Your task to perform on an android device: delete location history Image 0: 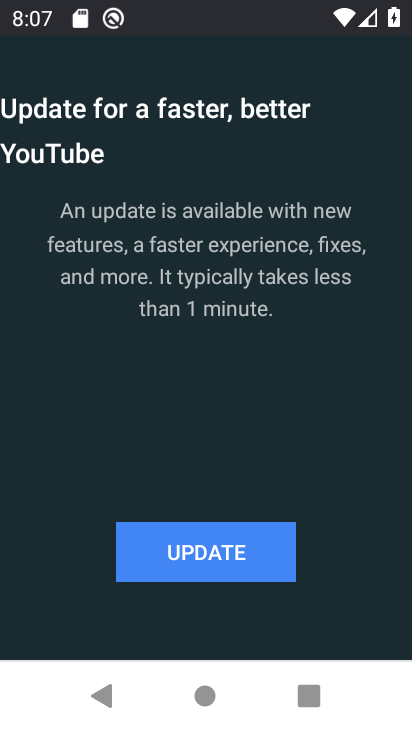
Step 0: press back button
Your task to perform on an android device: delete location history Image 1: 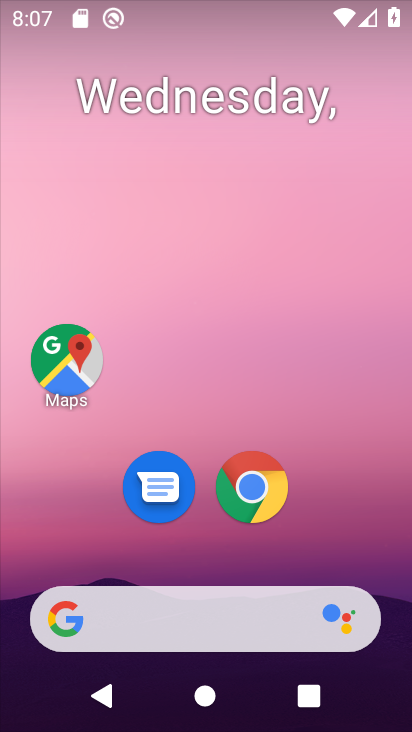
Step 1: click (65, 362)
Your task to perform on an android device: delete location history Image 2: 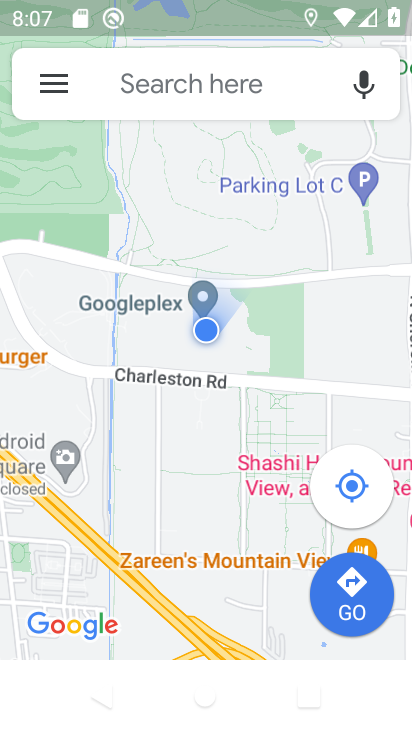
Step 2: click (51, 78)
Your task to perform on an android device: delete location history Image 3: 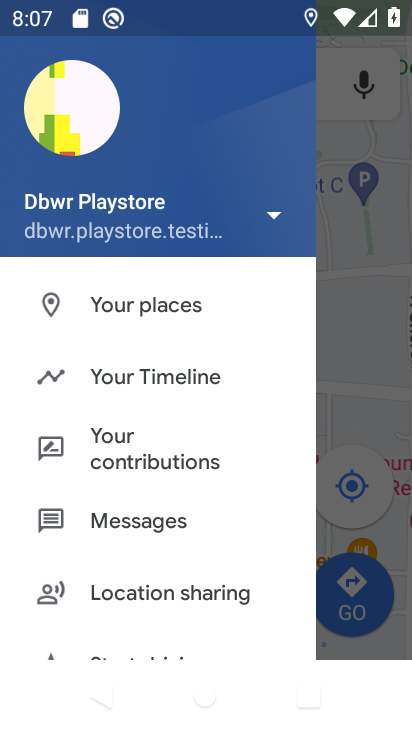
Step 3: drag from (116, 545) to (196, 416)
Your task to perform on an android device: delete location history Image 4: 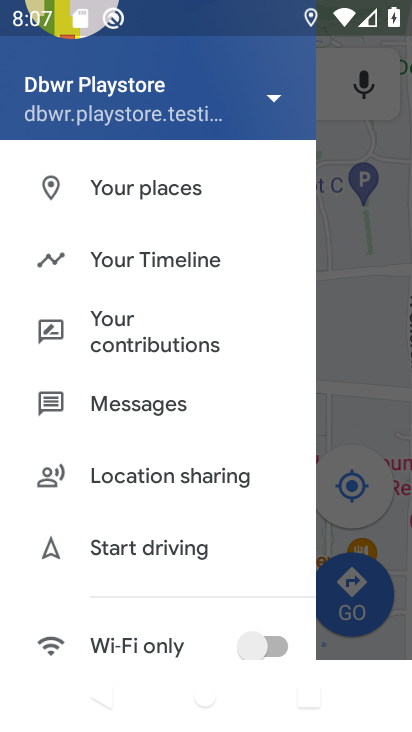
Step 4: drag from (130, 573) to (173, 470)
Your task to perform on an android device: delete location history Image 5: 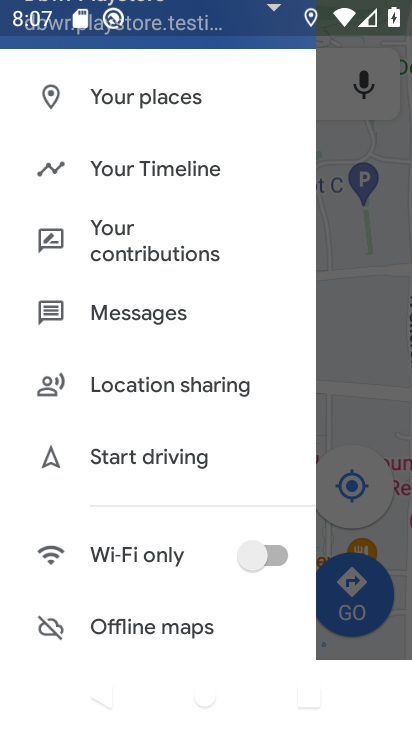
Step 5: drag from (123, 581) to (199, 434)
Your task to perform on an android device: delete location history Image 6: 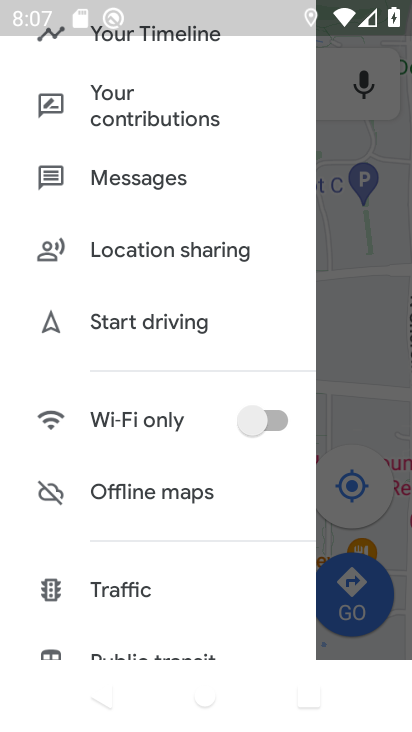
Step 6: drag from (144, 561) to (169, 443)
Your task to perform on an android device: delete location history Image 7: 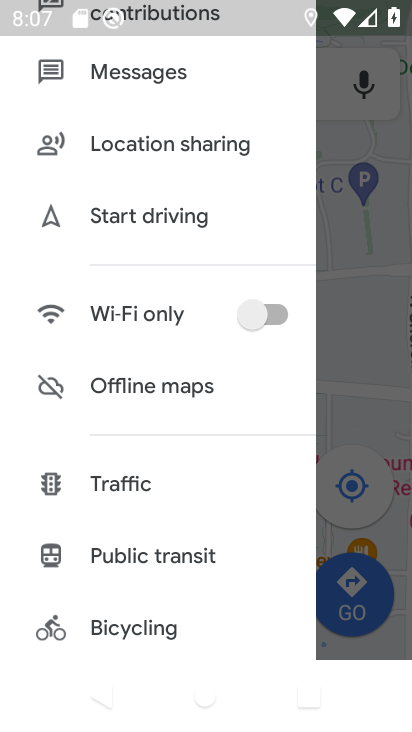
Step 7: drag from (118, 588) to (160, 483)
Your task to perform on an android device: delete location history Image 8: 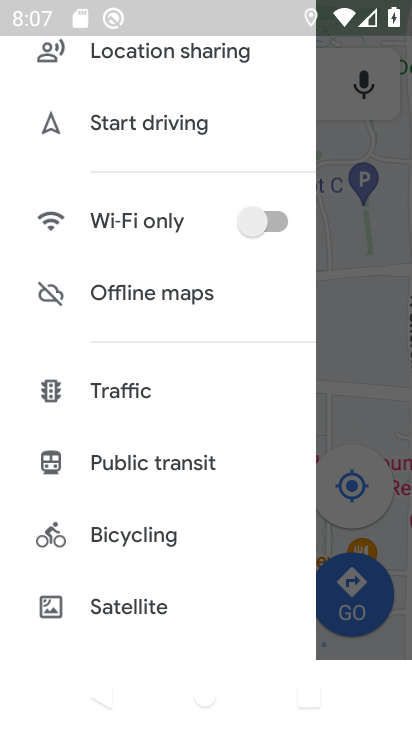
Step 8: drag from (143, 579) to (180, 478)
Your task to perform on an android device: delete location history Image 9: 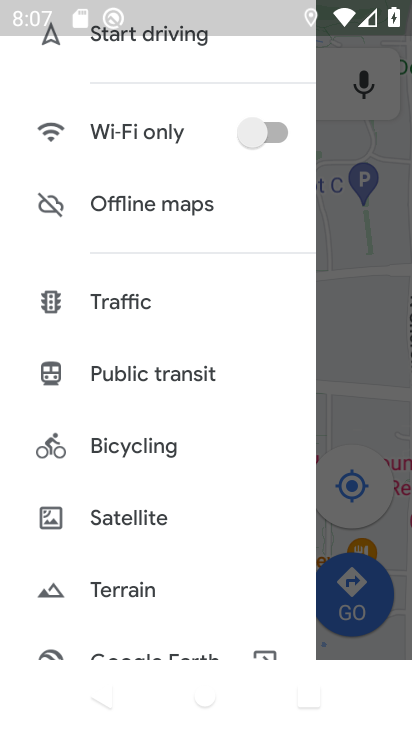
Step 9: drag from (124, 553) to (166, 476)
Your task to perform on an android device: delete location history Image 10: 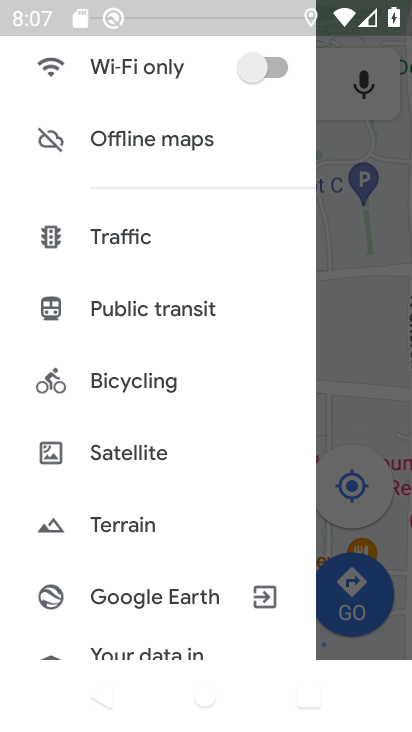
Step 10: drag from (136, 563) to (213, 458)
Your task to perform on an android device: delete location history Image 11: 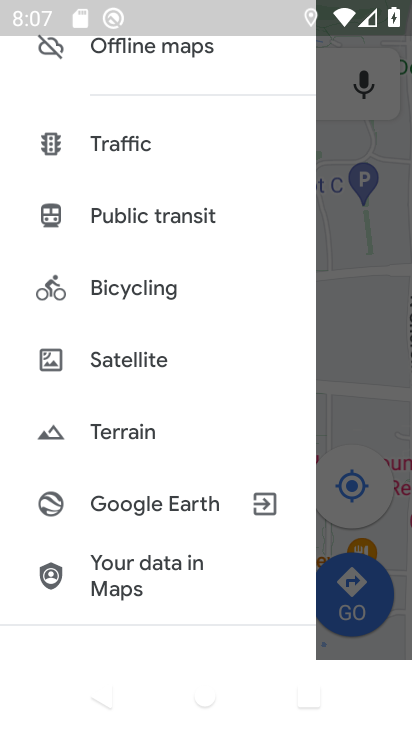
Step 11: drag from (158, 594) to (213, 442)
Your task to perform on an android device: delete location history Image 12: 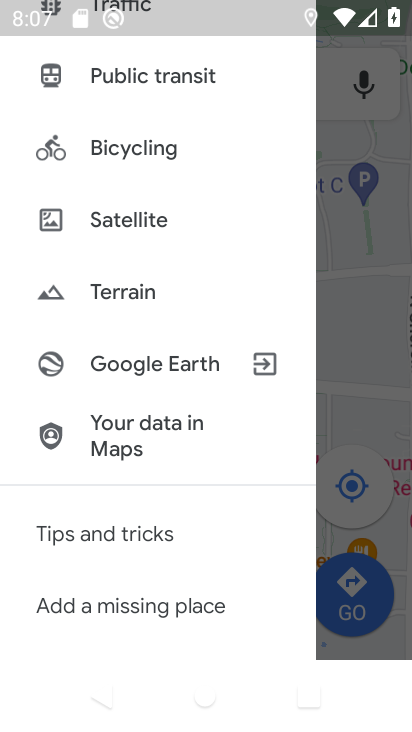
Step 12: drag from (161, 580) to (212, 461)
Your task to perform on an android device: delete location history Image 13: 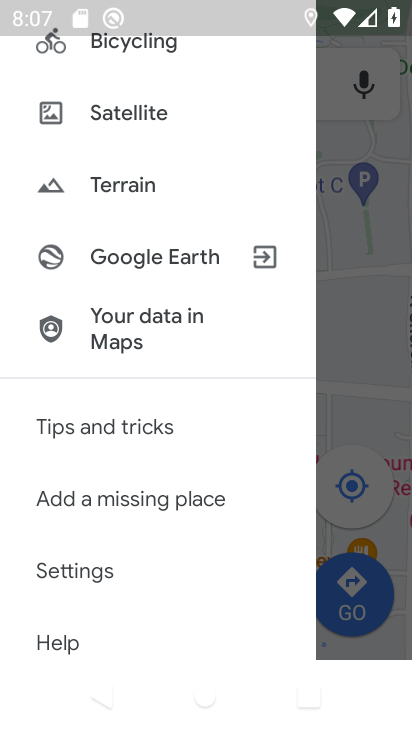
Step 13: click (109, 568)
Your task to perform on an android device: delete location history Image 14: 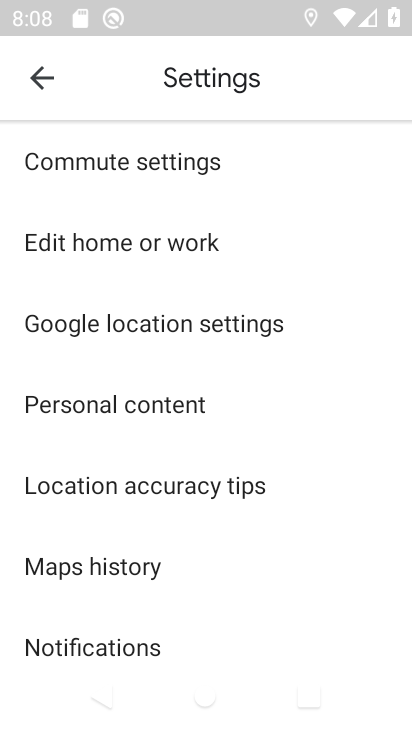
Step 14: click (116, 400)
Your task to perform on an android device: delete location history Image 15: 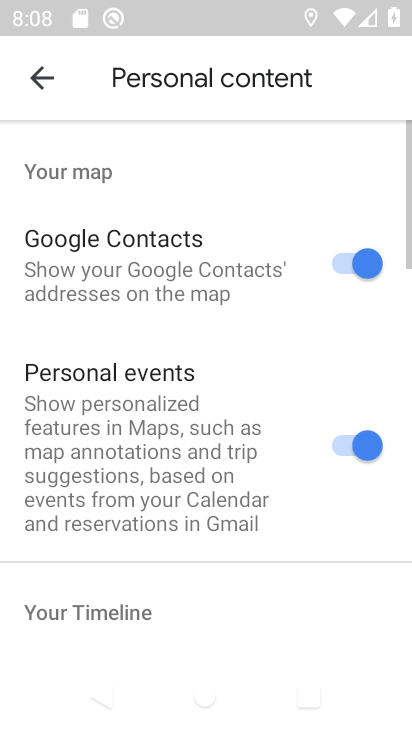
Step 15: drag from (137, 577) to (157, 369)
Your task to perform on an android device: delete location history Image 16: 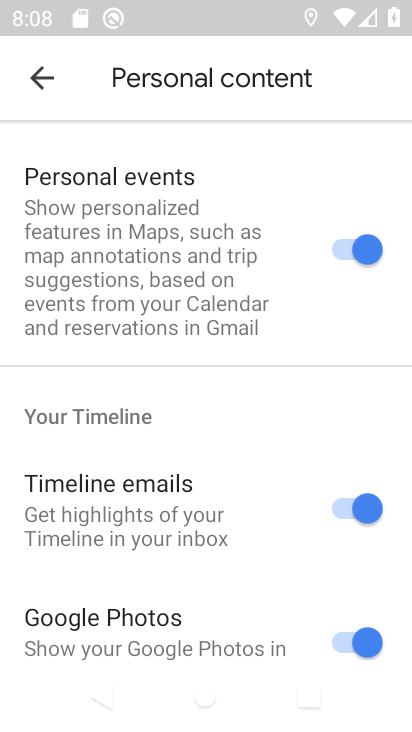
Step 16: drag from (129, 582) to (172, 392)
Your task to perform on an android device: delete location history Image 17: 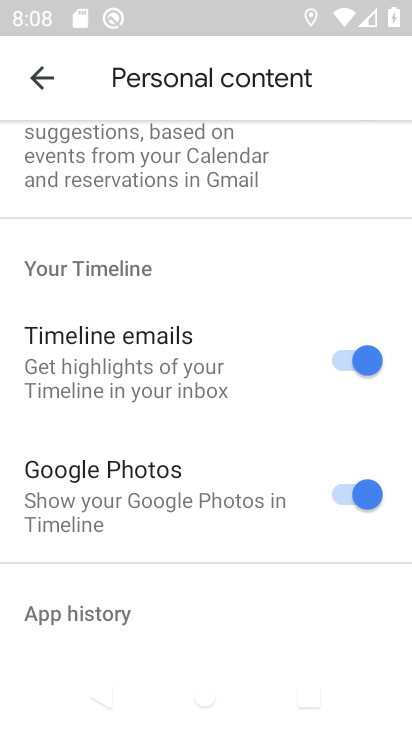
Step 17: drag from (118, 578) to (217, 387)
Your task to perform on an android device: delete location history Image 18: 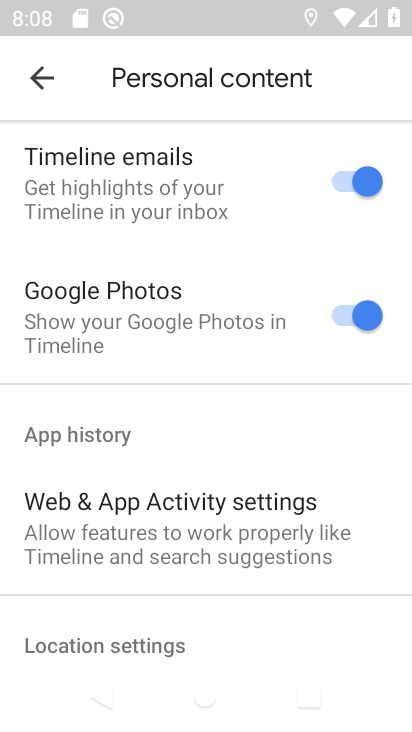
Step 18: drag from (122, 588) to (200, 396)
Your task to perform on an android device: delete location history Image 19: 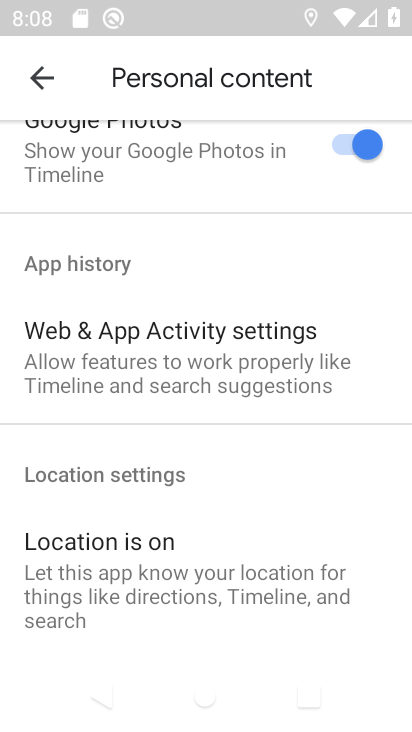
Step 19: drag from (127, 602) to (221, 484)
Your task to perform on an android device: delete location history Image 20: 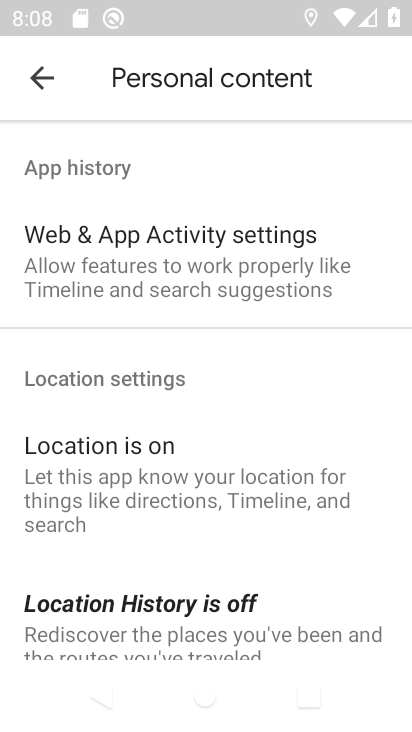
Step 20: drag from (138, 580) to (251, 447)
Your task to perform on an android device: delete location history Image 21: 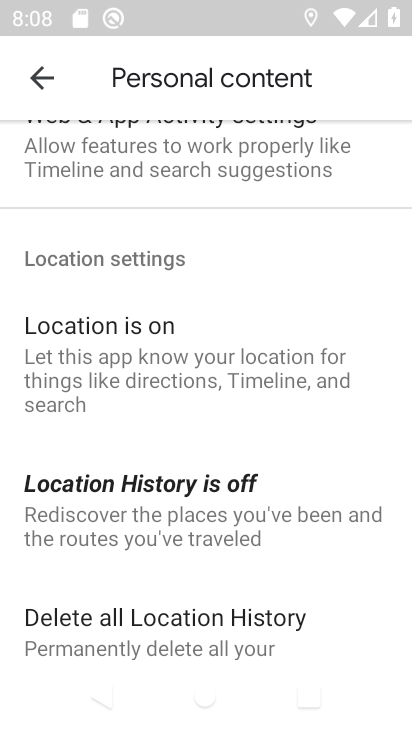
Step 21: drag from (162, 579) to (249, 438)
Your task to perform on an android device: delete location history Image 22: 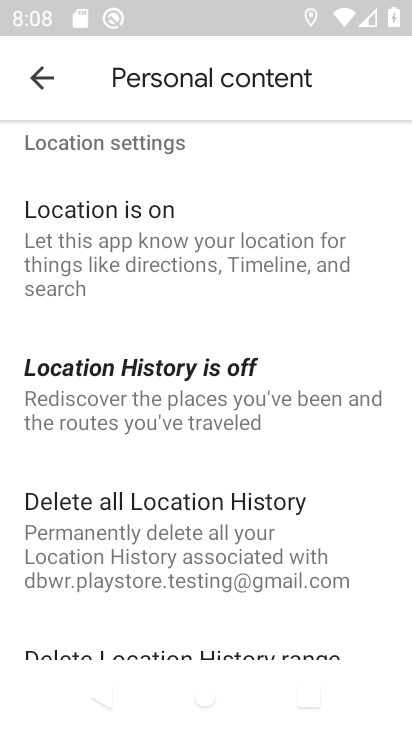
Step 22: click (215, 501)
Your task to perform on an android device: delete location history Image 23: 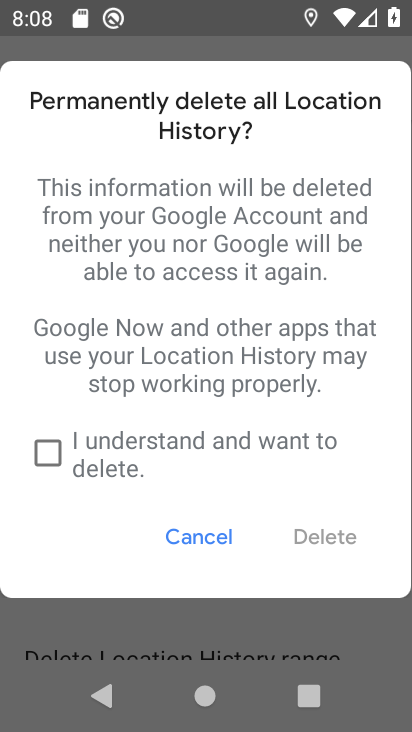
Step 23: click (51, 450)
Your task to perform on an android device: delete location history Image 24: 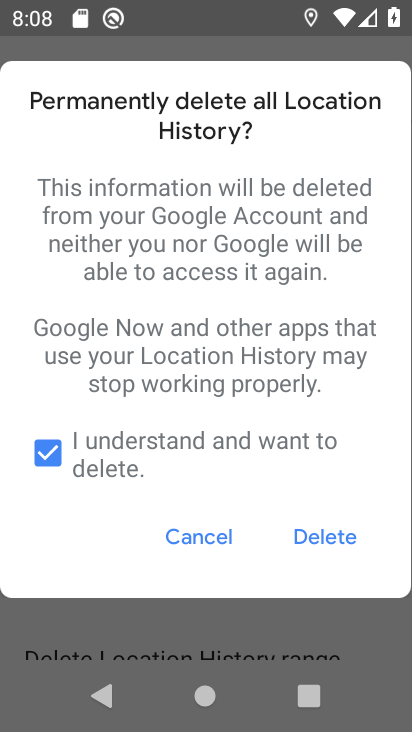
Step 24: click (332, 536)
Your task to perform on an android device: delete location history Image 25: 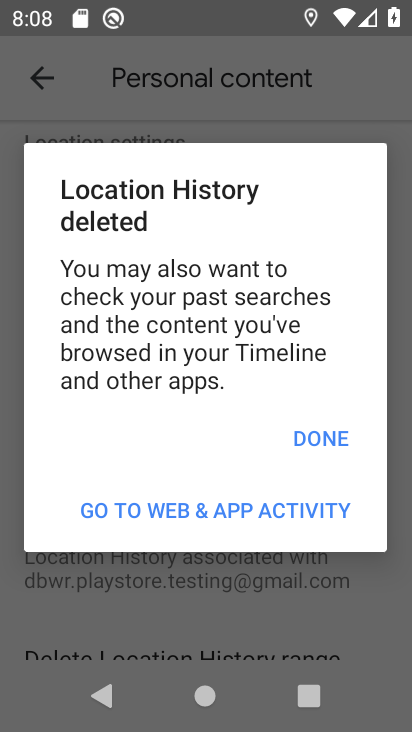
Step 25: click (321, 434)
Your task to perform on an android device: delete location history Image 26: 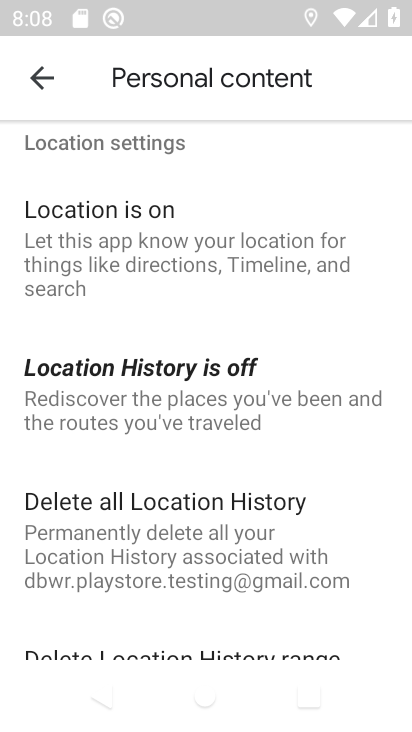
Step 26: task complete